Your task to perform on an android device: check google app version Image 0: 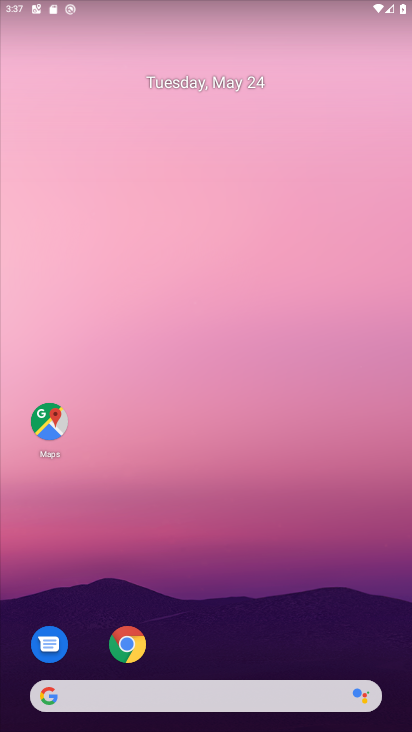
Step 0: click (143, 651)
Your task to perform on an android device: check google app version Image 1: 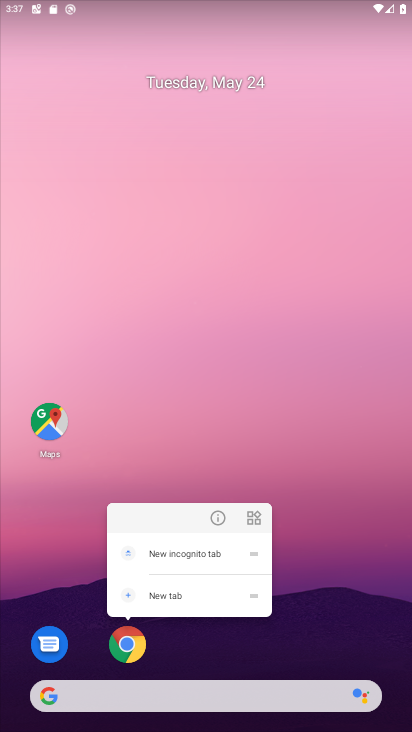
Step 1: click (208, 521)
Your task to perform on an android device: check google app version Image 2: 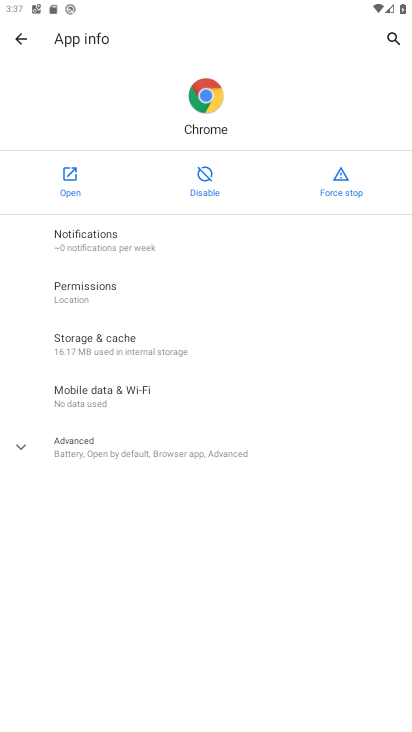
Step 2: task complete